Your task to perform on an android device: Open calendar and show me the fourth week of next month Image 0: 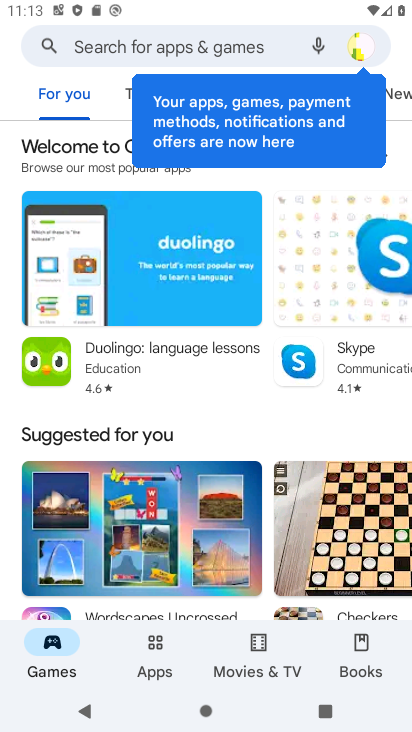
Step 0: press home button
Your task to perform on an android device: Open calendar and show me the fourth week of next month Image 1: 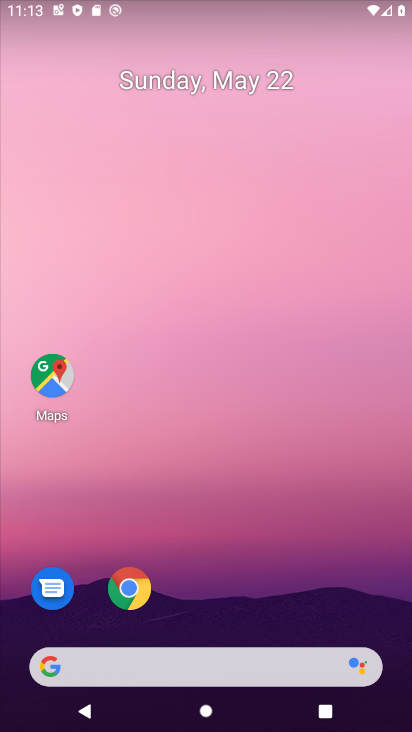
Step 1: drag from (233, 643) to (234, 225)
Your task to perform on an android device: Open calendar and show me the fourth week of next month Image 2: 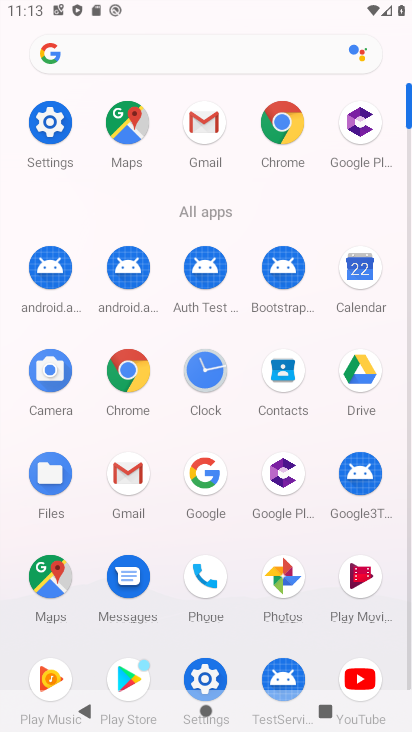
Step 2: click (372, 282)
Your task to perform on an android device: Open calendar and show me the fourth week of next month Image 3: 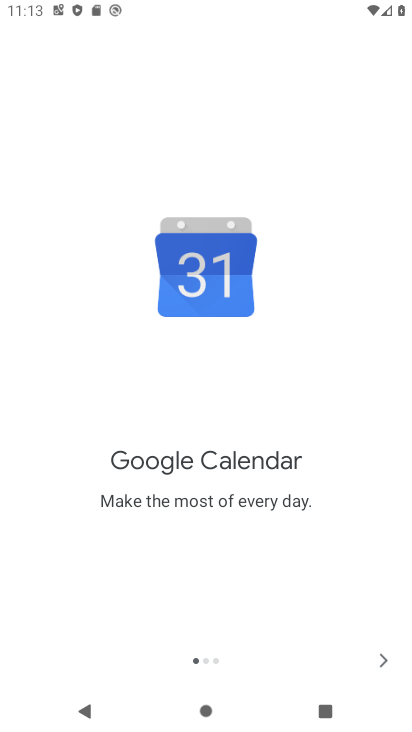
Step 3: click (379, 659)
Your task to perform on an android device: Open calendar and show me the fourth week of next month Image 4: 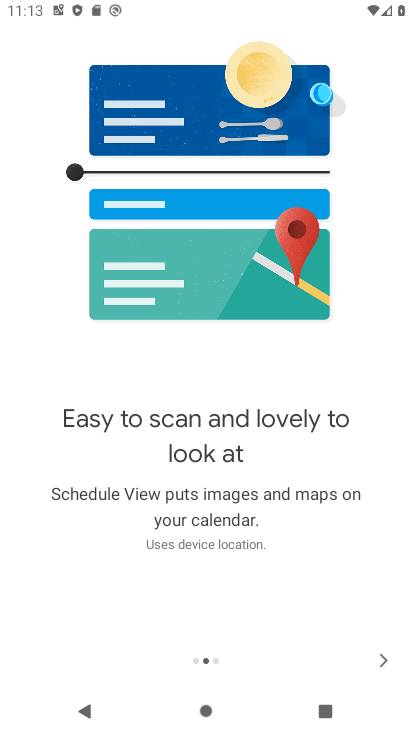
Step 4: click (379, 659)
Your task to perform on an android device: Open calendar and show me the fourth week of next month Image 5: 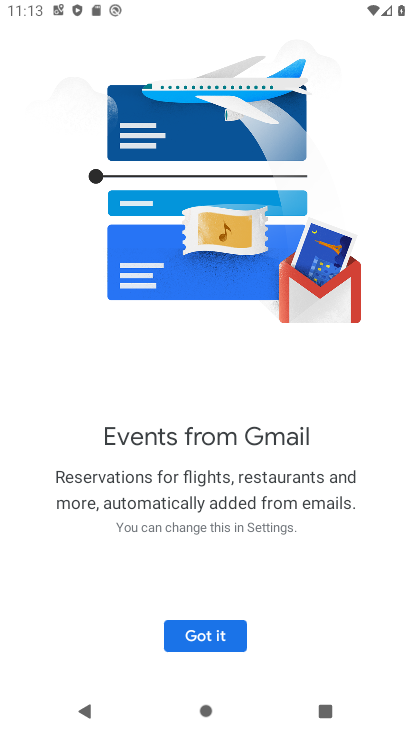
Step 5: click (192, 636)
Your task to perform on an android device: Open calendar and show me the fourth week of next month Image 6: 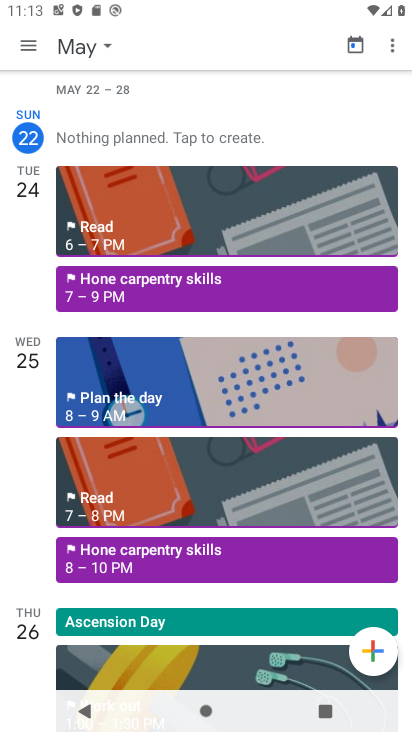
Step 6: click (85, 42)
Your task to perform on an android device: Open calendar and show me the fourth week of next month Image 7: 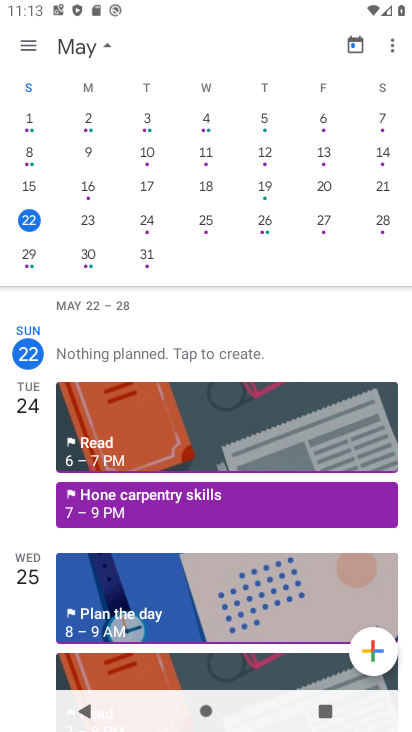
Step 7: drag from (355, 144) to (54, 192)
Your task to perform on an android device: Open calendar and show me the fourth week of next month Image 8: 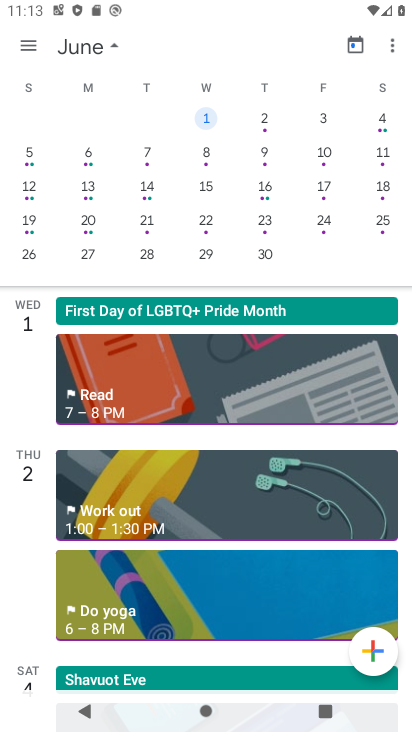
Step 8: click (30, 227)
Your task to perform on an android device: Open calendar and show me the fourth week of next month Image 9: 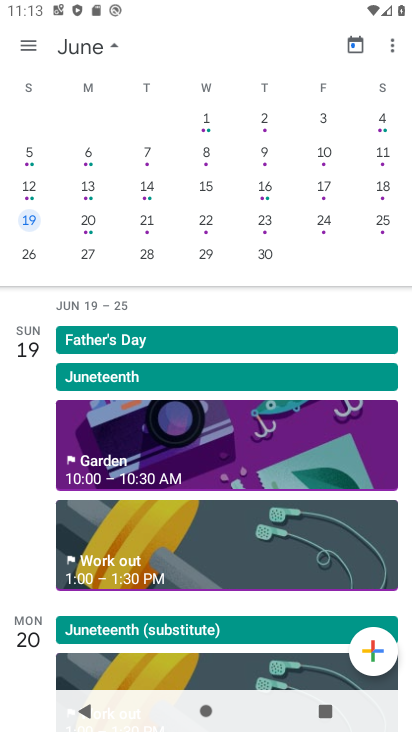
Step 9: task complete